Your task to perform on an android device: add a contact Image 0: 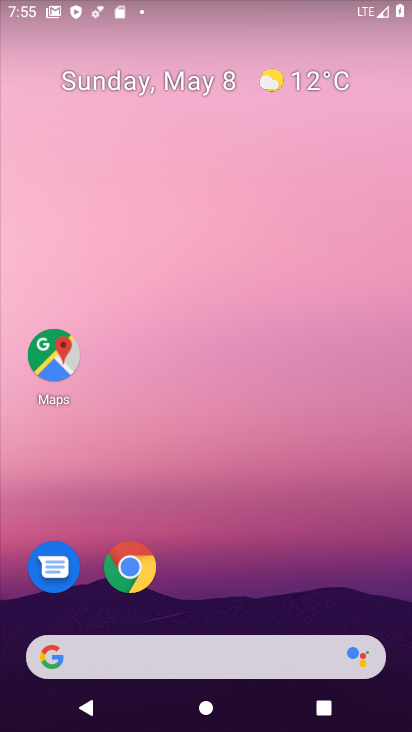
Step 0: drag from (167, 652) to (149, 272)
Your task to perform on an android device: add a contact Image 1: 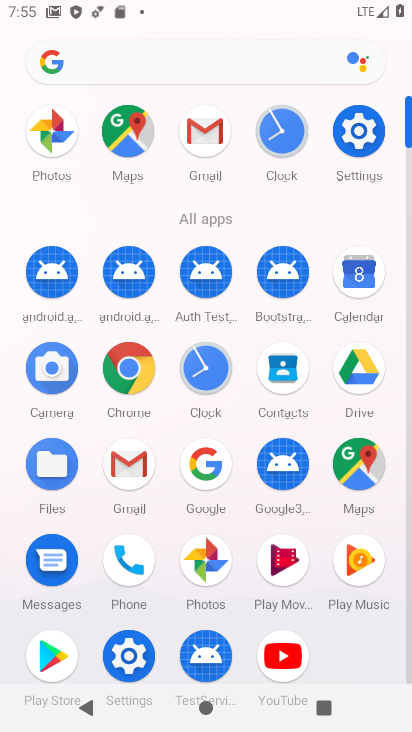
Step 1: click (274, 387)
Your task to perform on an android device: add a contact Image 2: 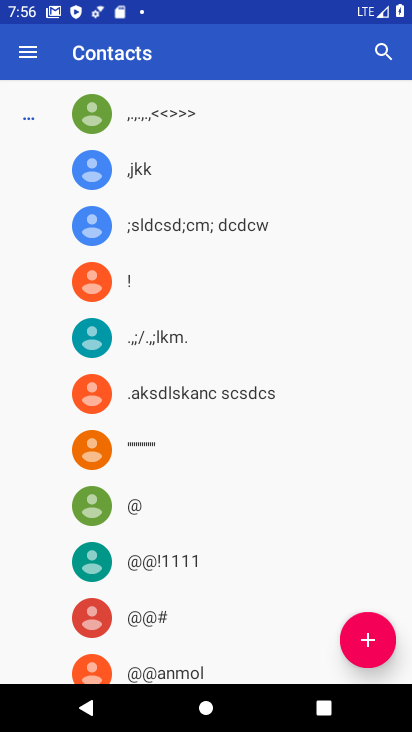
Step 2: click (368, 636)
Your task to perform on an android device: add a contact Image 3: 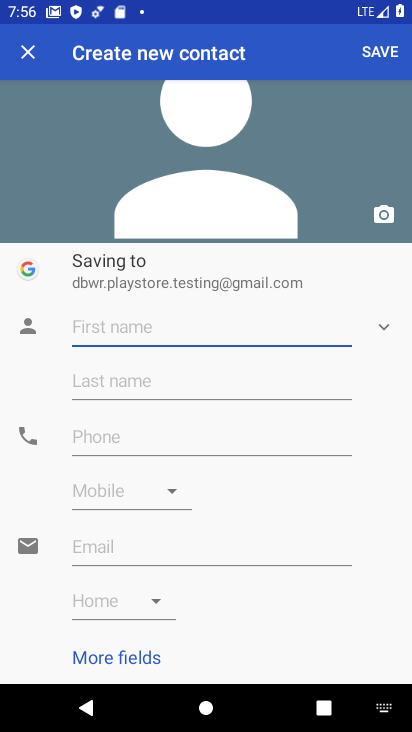
Step 3: type "omar navarro"
Your task to perform on an android device: add a contact Image 4: 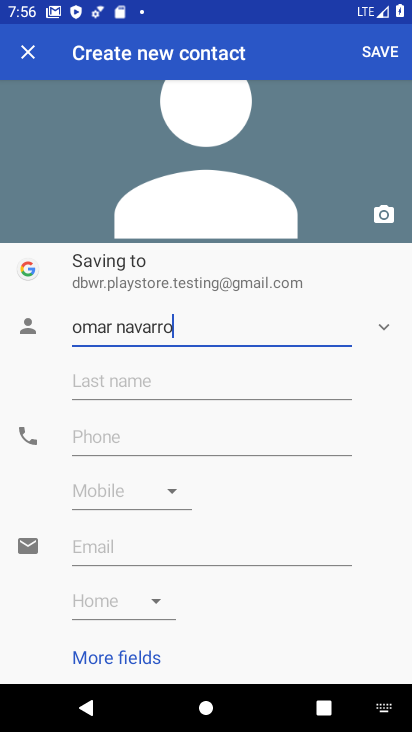
Step 4: click (128, 434)
Your task to perform on an android device: add a contact Image 5: 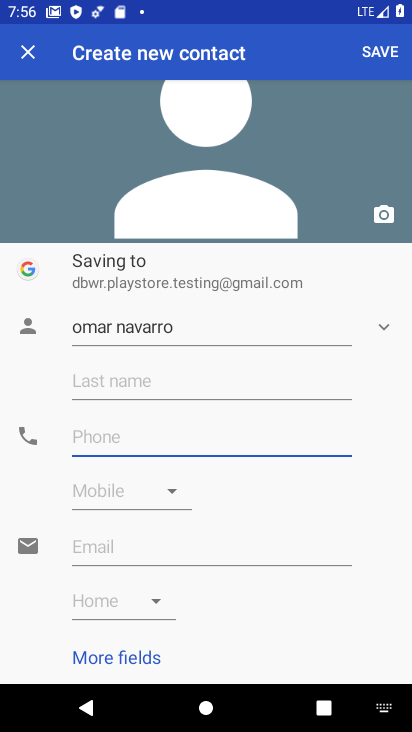
Step 5: type "927834923"
Your task to perform on an android device: add a contact Image 6: 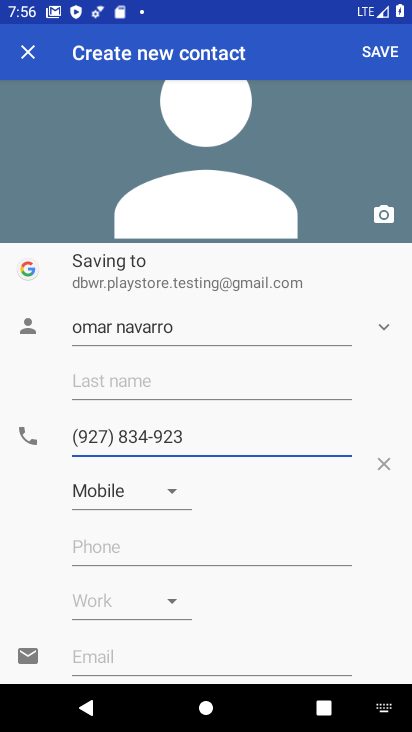
Step 6: click (374, 54)
Your task to perform on an android device: add a contact Image 7: 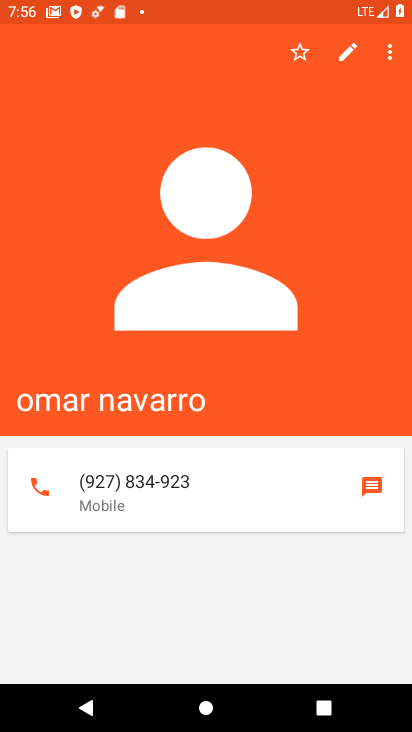
Step 7: task complete